Your task to perform on an android device: check data usage Image 0: 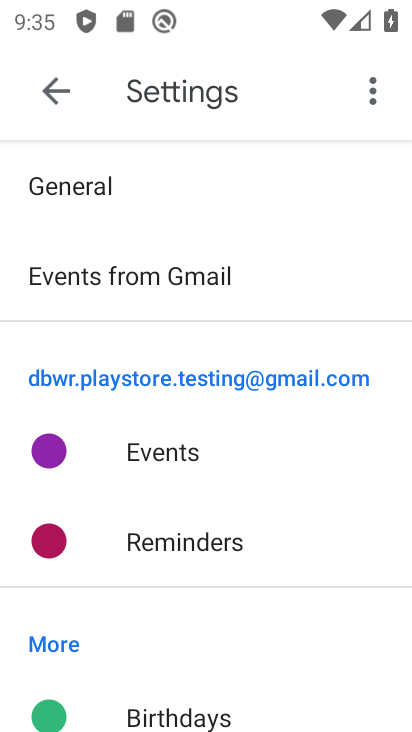
Step 0: press home button
Your task to perform on an android device: check data usage Image 1: 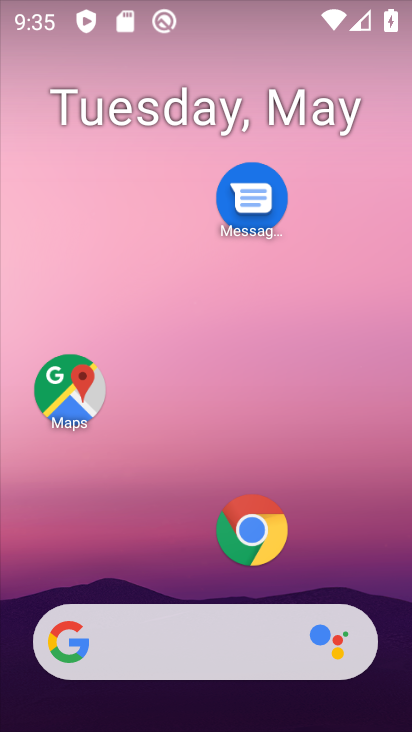
Step 1: drag from (203, 584) to (185, 51)
Your task to perform on an android device: check data usage Image 2: 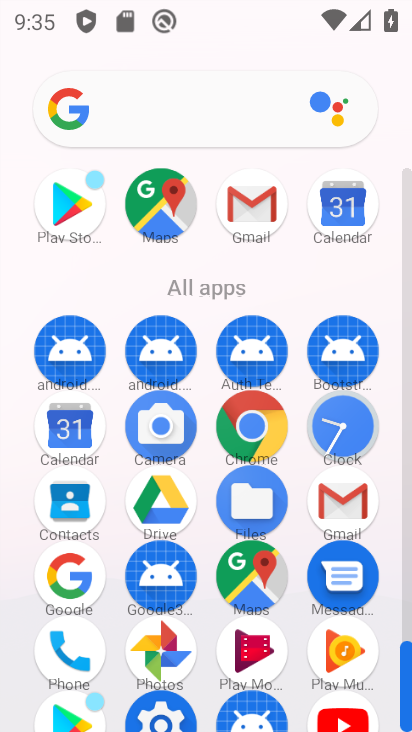
Step 2: click (157, 727)
Your task to perform on an android device: check data usage Image 3: 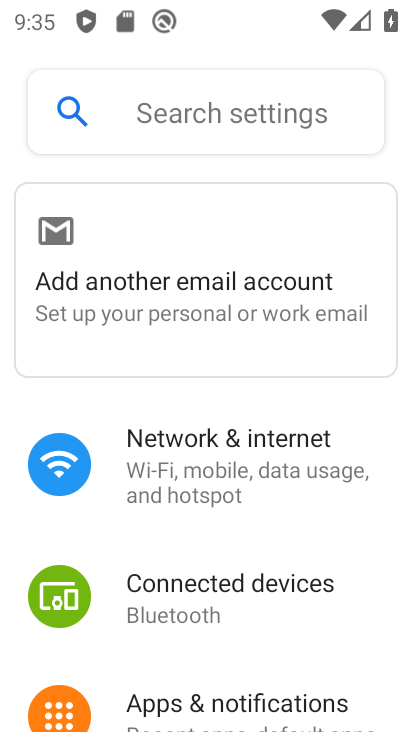
Step 3: click (210, 485)
Your task to perform on an android device: check data usage Image 4: 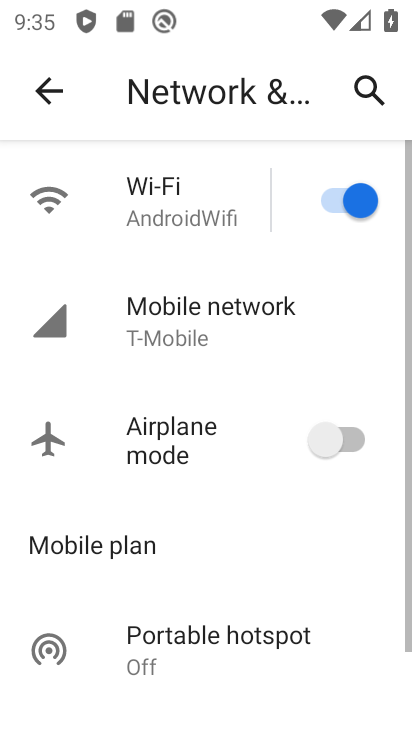
Step 4: click (187, 338)
Your task to perform on an android device: check data usage Image 5: 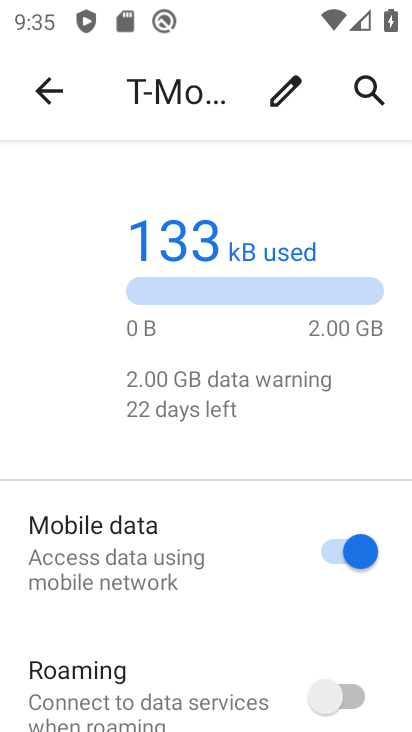
Step 5: task complete